Your task to perform on an android device: Is it going to rain this weekend? Image 0: 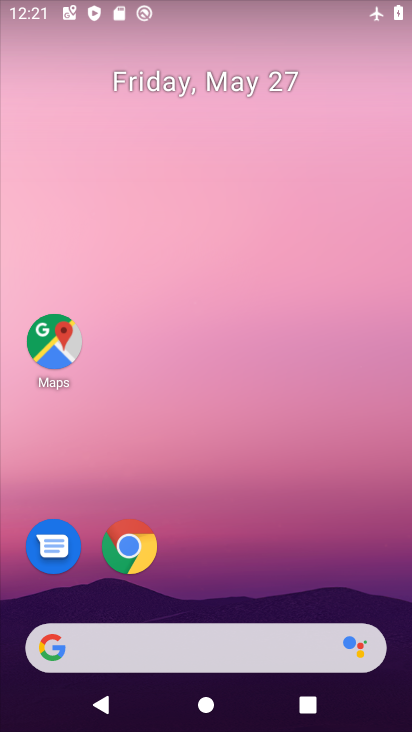
Step 0: click (215, 634)
Your task to perform on an android device: Is it going to rain this weekend? Image 1: 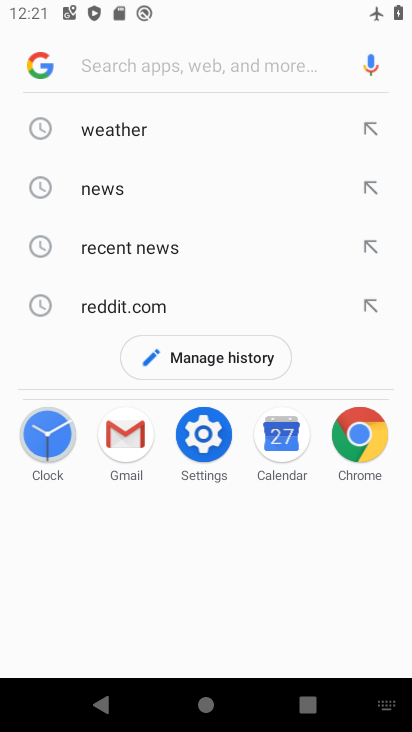
Step 1: click (122, 133)
Your task to perform on an android device: Is it going to rain this weekend? Image 2: 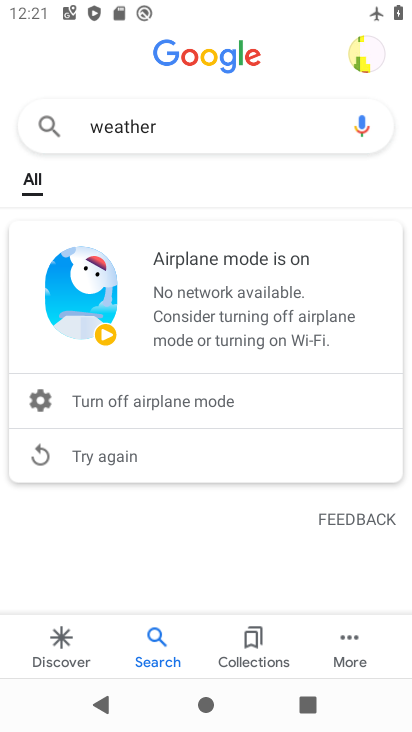
Step 2: task complete